Your task to perform on an android device: turn off location history Image 0: 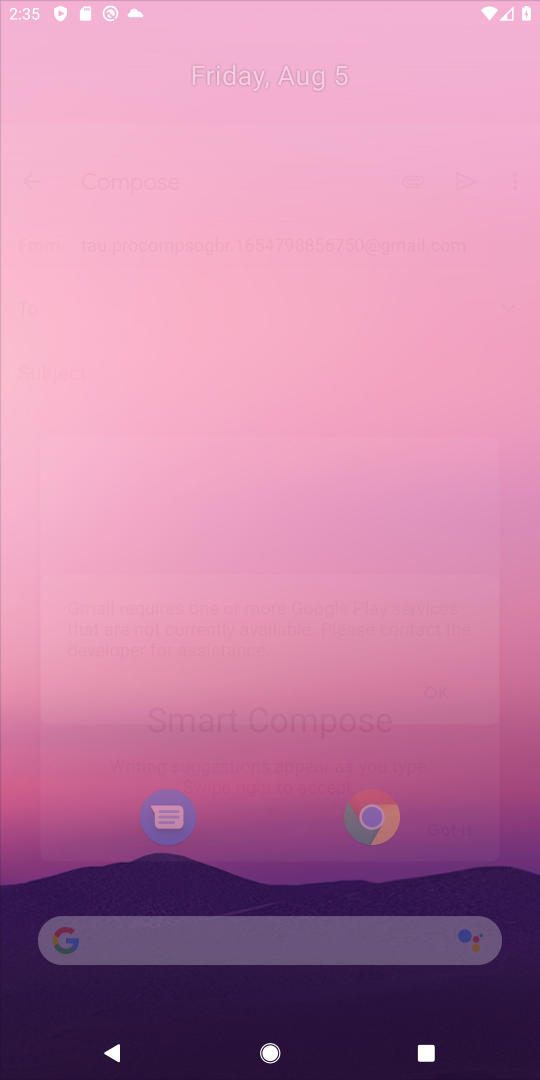
Step 0: press home button
Your task to perform on an android device: turn off location history Image 1: 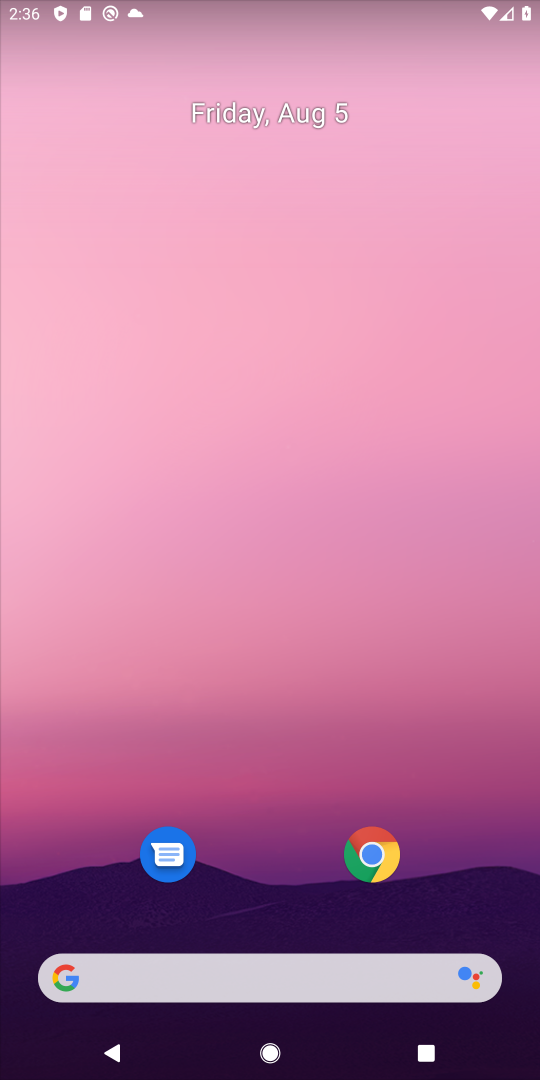
Step 1: drag from (46, 1044) to (484, 284)
Your task to perform on an android device: turn off location history Image 2: 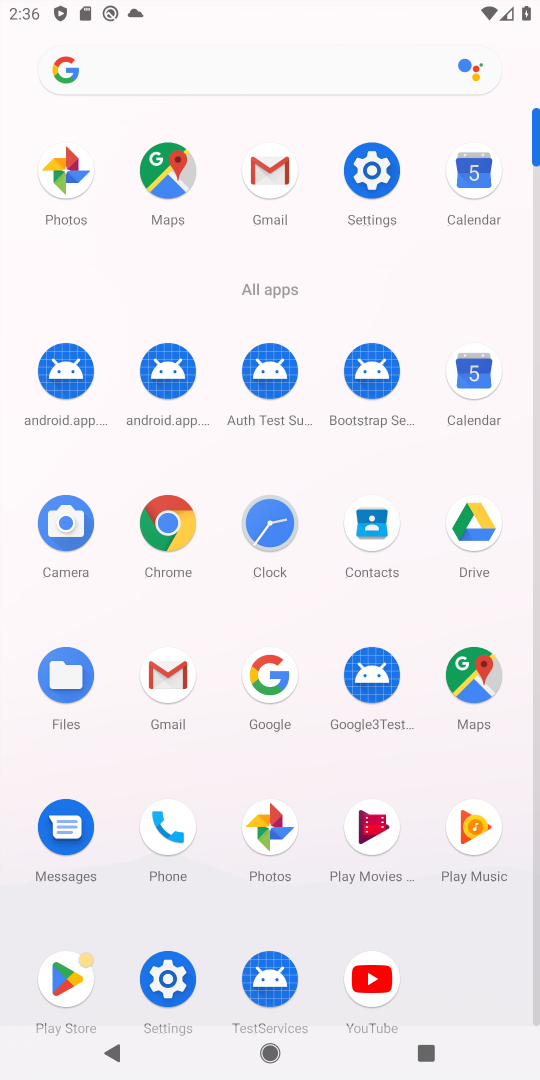
Step 2: click (177, 981)
Your task to perform on an android device: turn off location history Image 3: 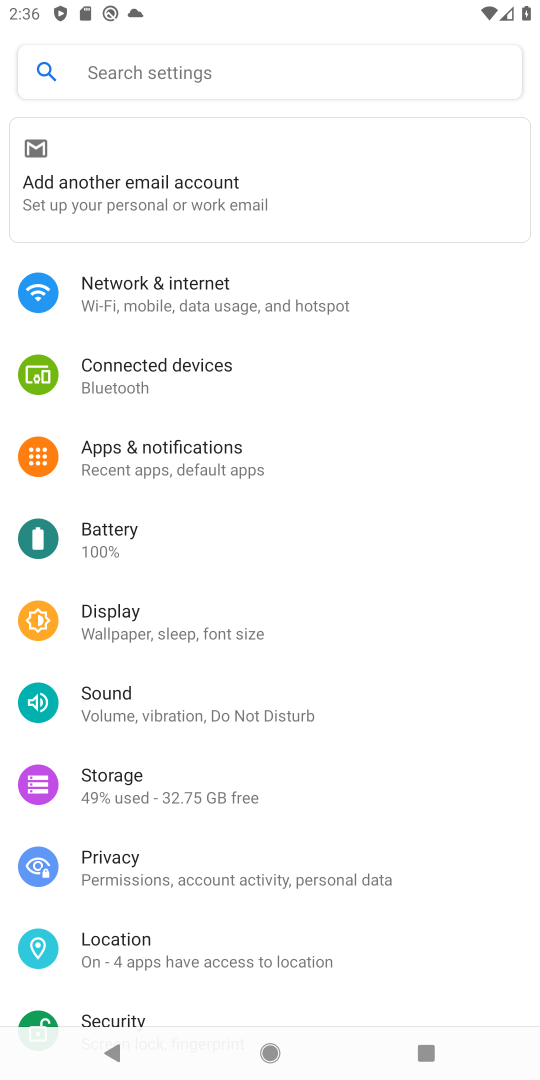
Step 3: click (134, 946)
Your task to perform on an android device: turn off location history Image 4: 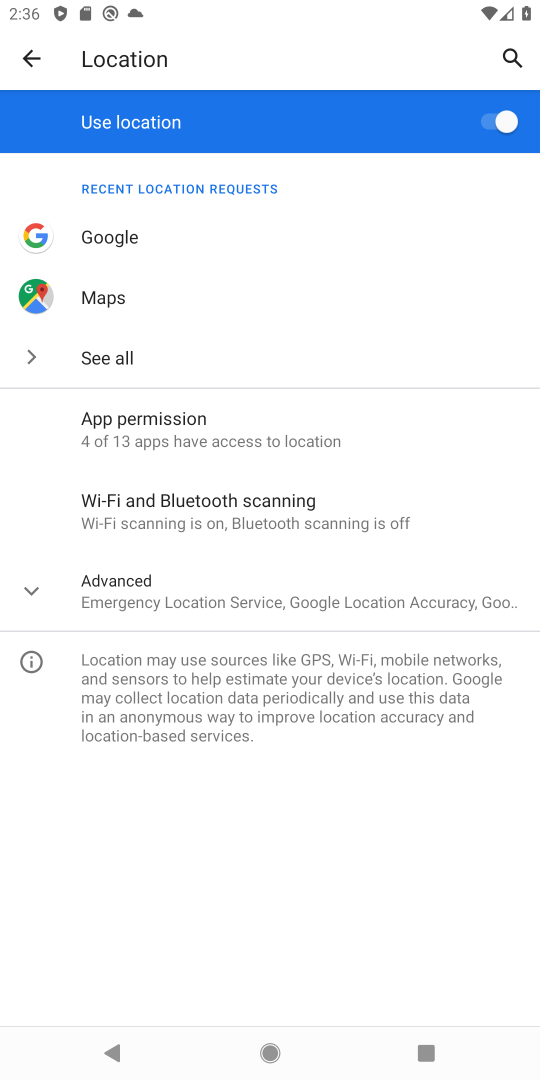
Step 4: click (159, 592)
Your task to perform on an android device: turn off location history Image 5: 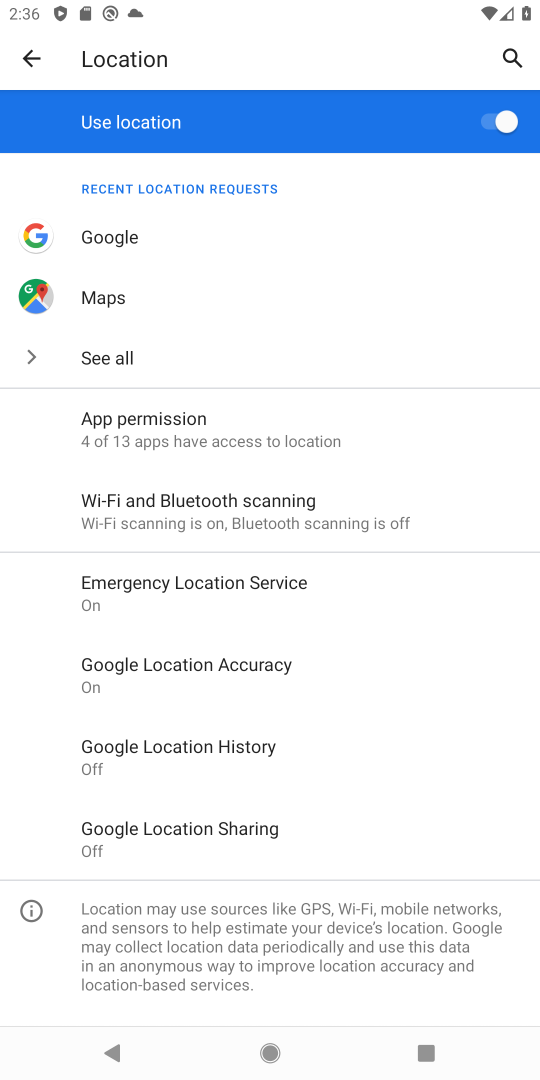
Step 5: click (230, 763)
Your task to perform on an android device: turn off location history Image 6: 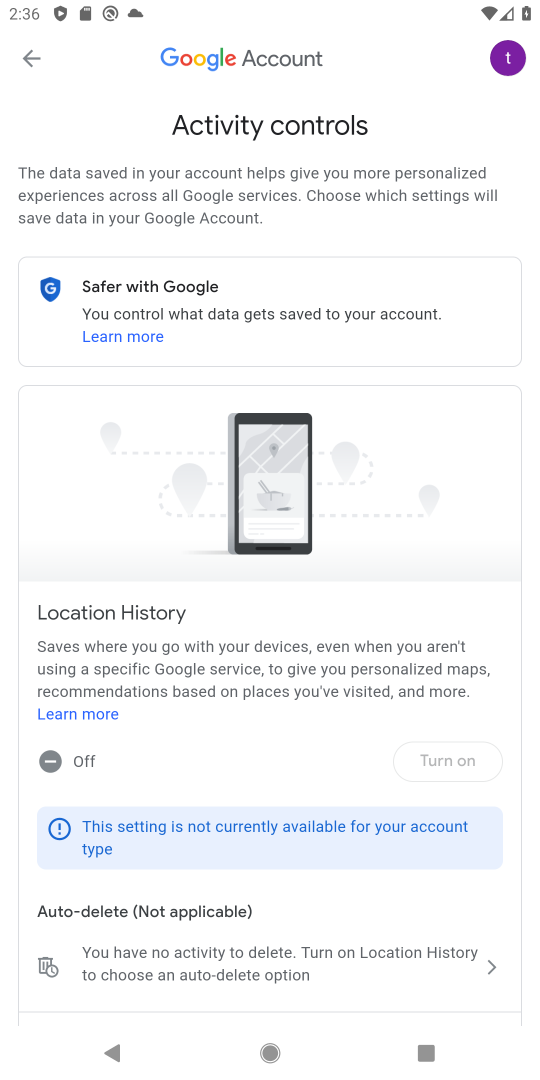
Step 6: click (460, 743)
Your task to perform on an android device: turn off location history Image 7: 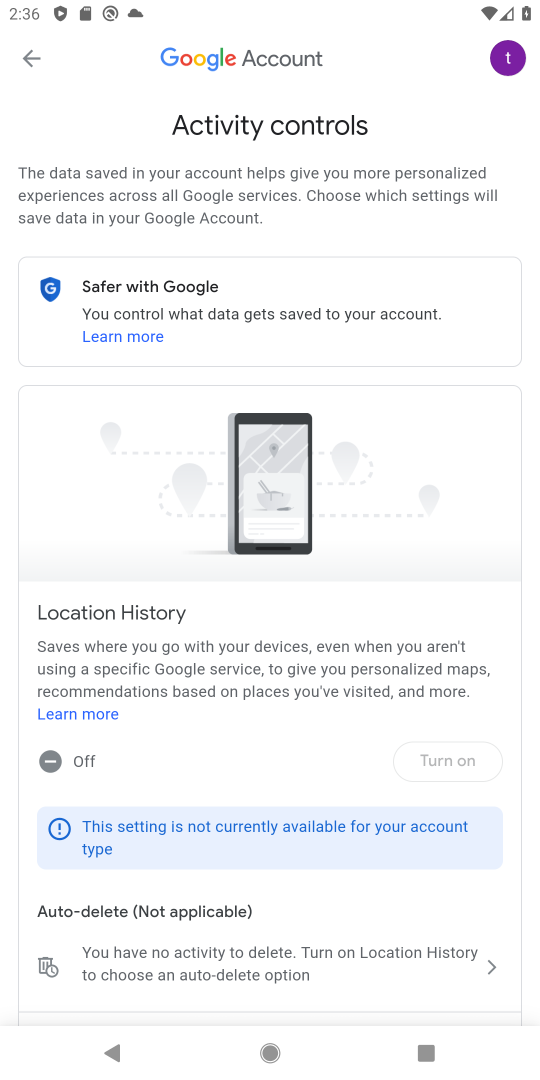
Step 7: click (460, 743)
Your task to perform on an android device: turn off location history Image 8: 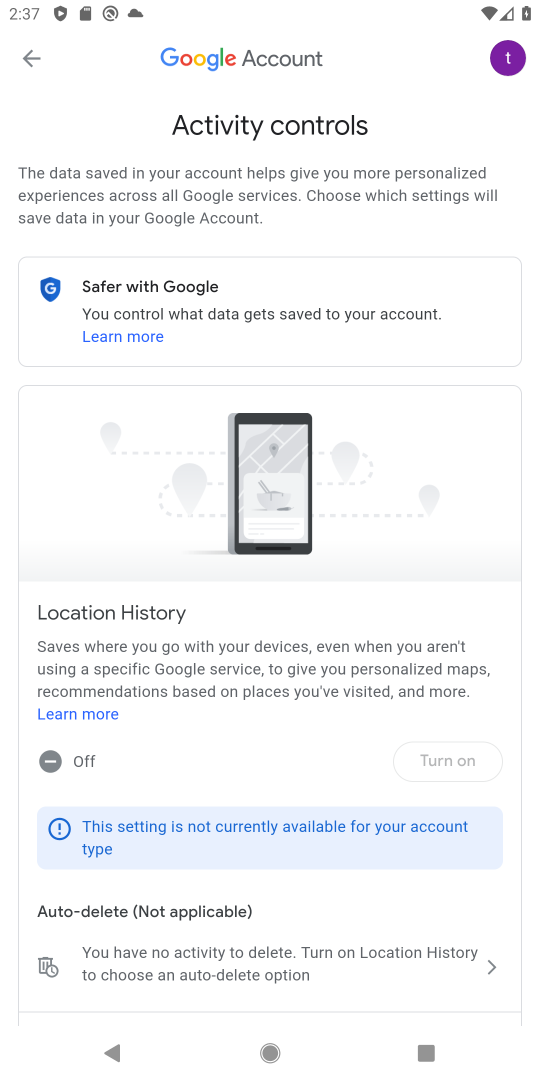
Step 8: click (444, 752)
Your task to perform on an android device: turn off location history Image 9: 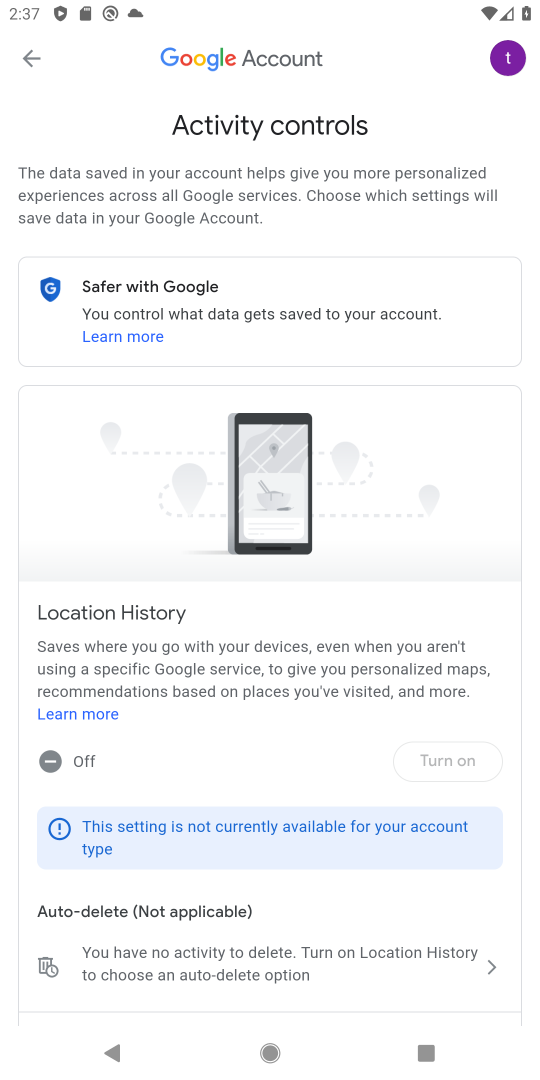
Step 9: click (444, 752)
Your task to perform on an android device: turn off location history Image 10: 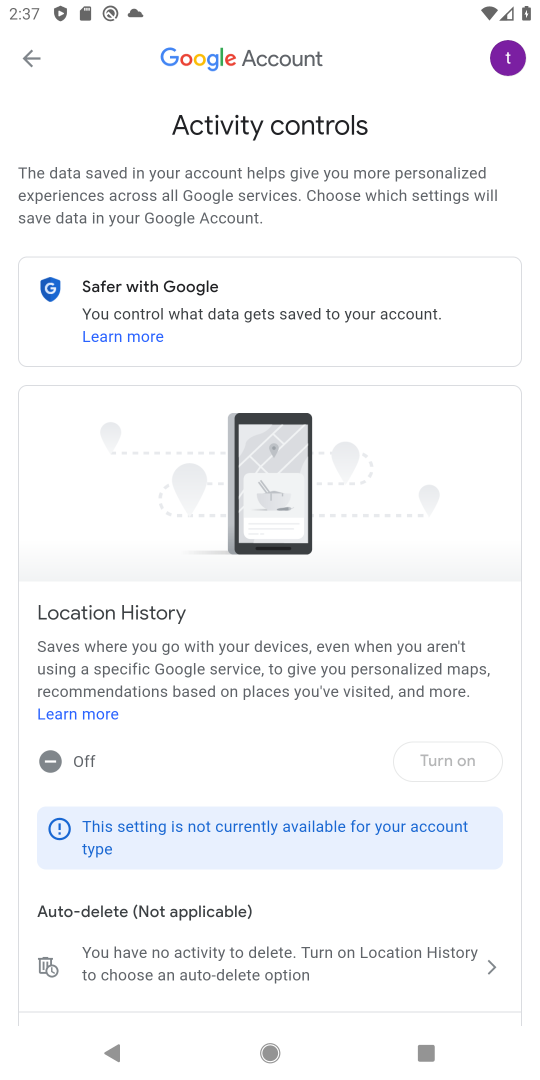
Step 10: click (441, 762)
Your task to perform on an android device: turn off location history Image 11: 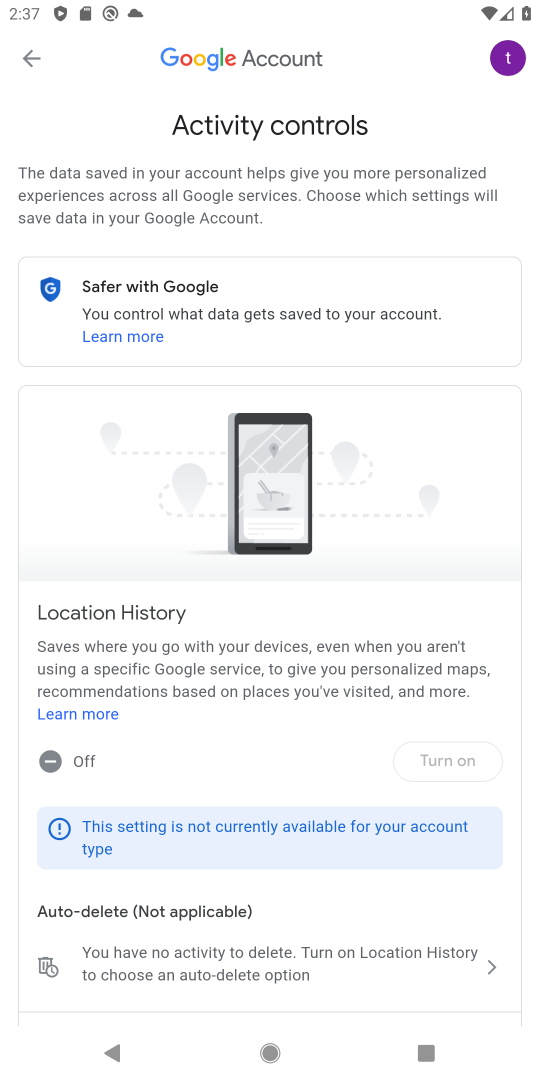
Step 11: click (441, 762)
Your task to perform on an android device: turn off location history Image 12: 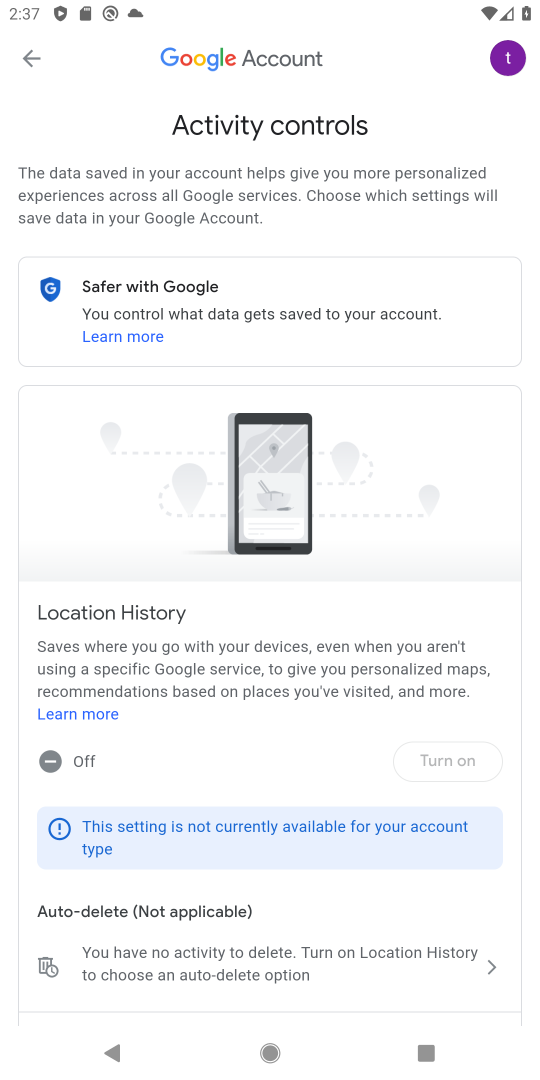
Step 12: task complete